Your task to perform on an android device: Do I have any events tomorrow? Image 0: 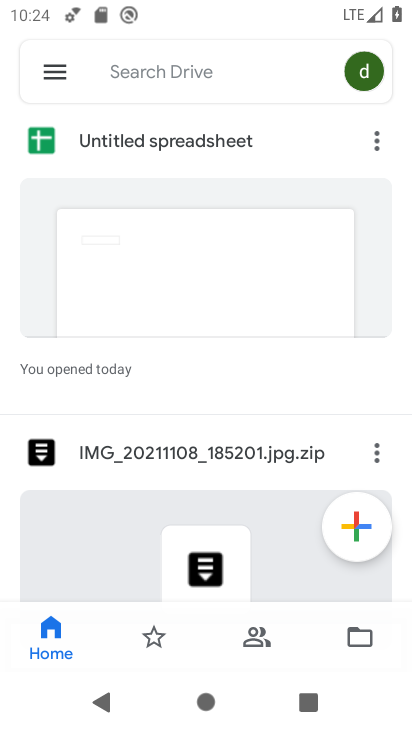
Step 0: press home button
Your task to perform on an android device: Do I have any events tomorrow? Image 1: 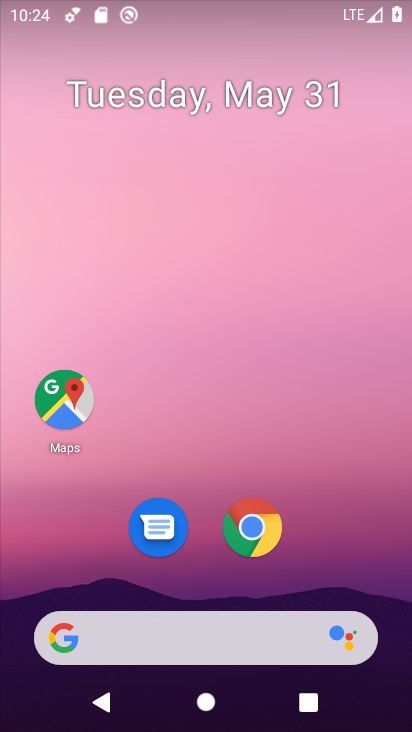
Step 1: drag from (344, 602) to (338, 10)
Your task to perform on an android device: Do I have any events tomorrow? Image 2: 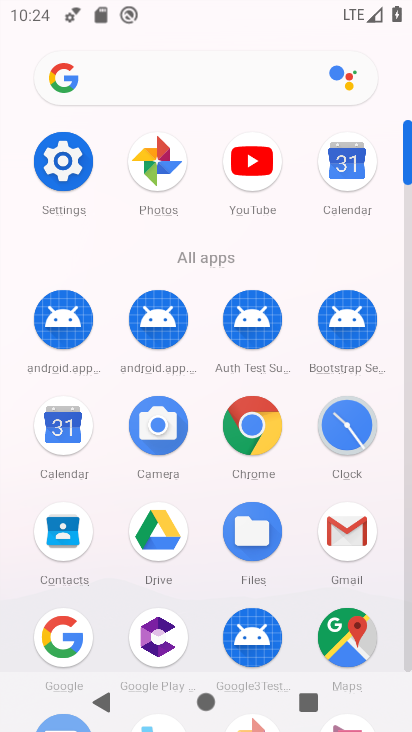
Step 2: click (346, 161)
Your task to perform on an android device: Do I have any events tomorrow? Image 3: 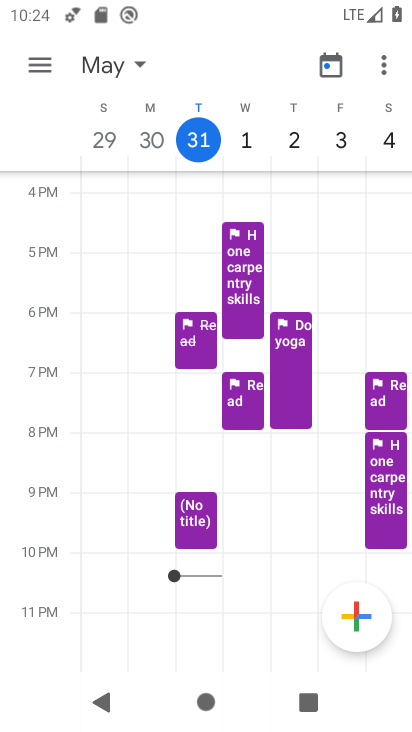
Step 3: click (36, 62)
Your task to perform on an android device: Do I have any events tomorrow? Image 4: 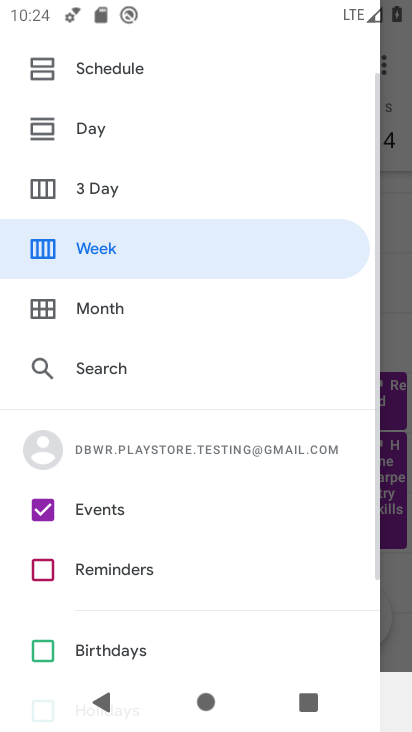
Step 4: click (76, 75)
Your task to perform on an android device: Do I have any events tomorrow? Image 5: 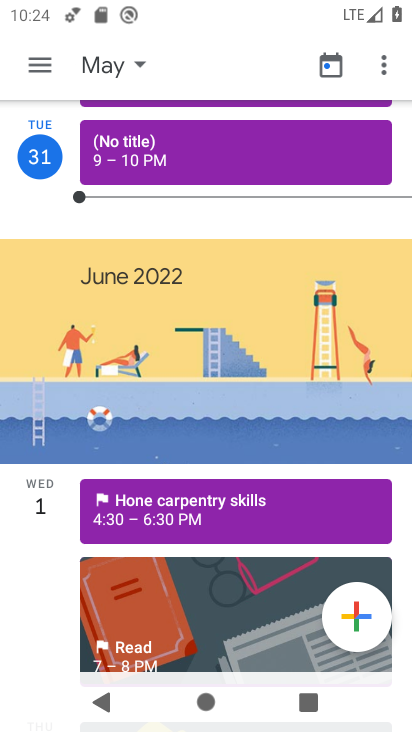
Step 5: click (184, 507)
Your task to perform on an android device: Do I have any events tomorrow? Image 6: 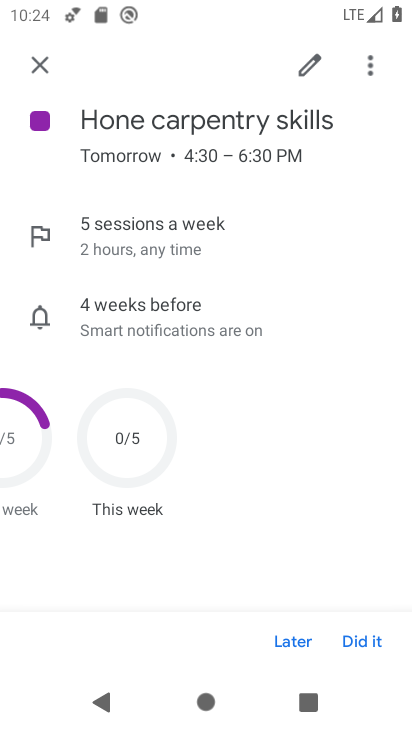
Step 6: task complete